Your task to perform on an android device: Check the news Image 0: 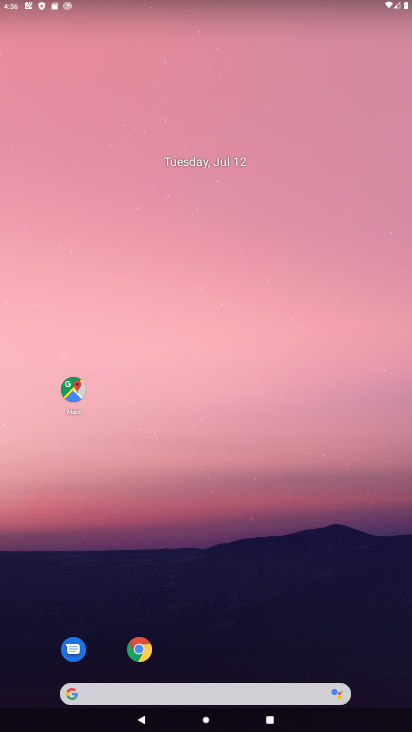
Step 0: click (138, 649)
Your task to perform on an android device: Check the news Image 1: 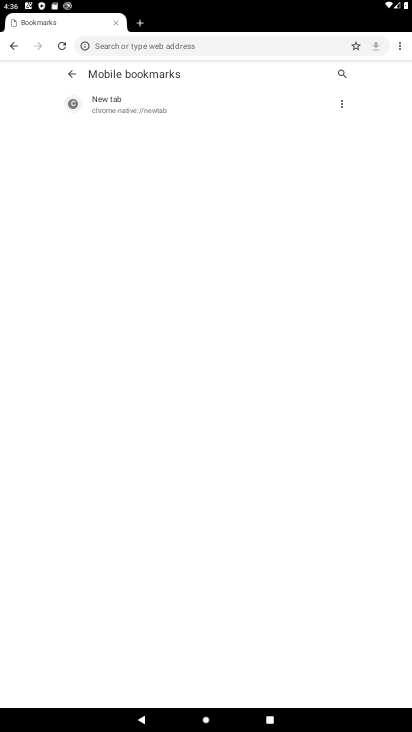
Step 1: click (323, 45)
Your task to perform on an android device: Check the news Image 2: 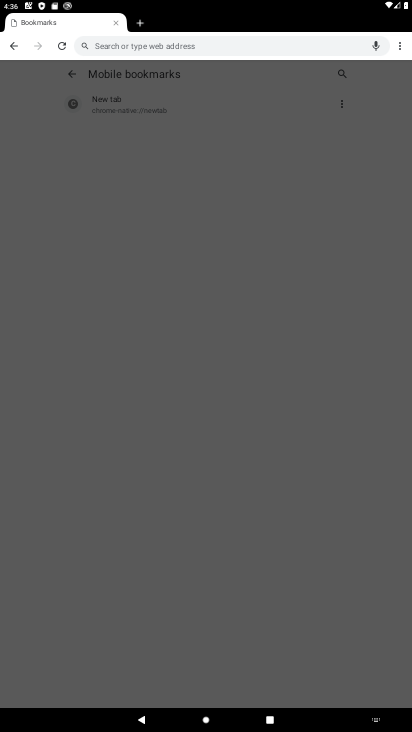
Step 2: type "news"
Your task to perform on an android device: Check the news Image 3: 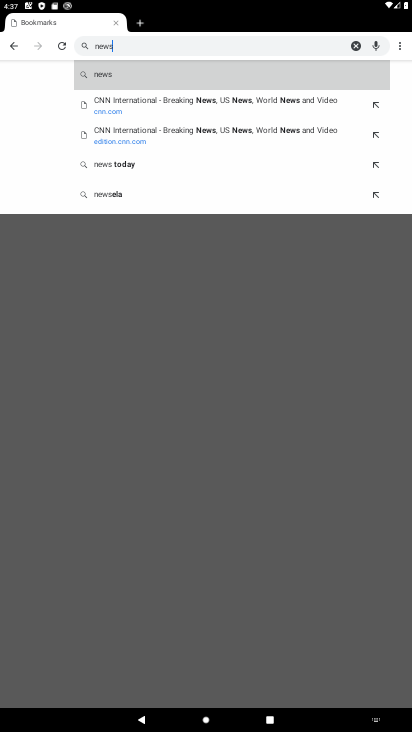
Step 3: click (103, 70)
Your task to perform on an android device: Check the news Image 4: 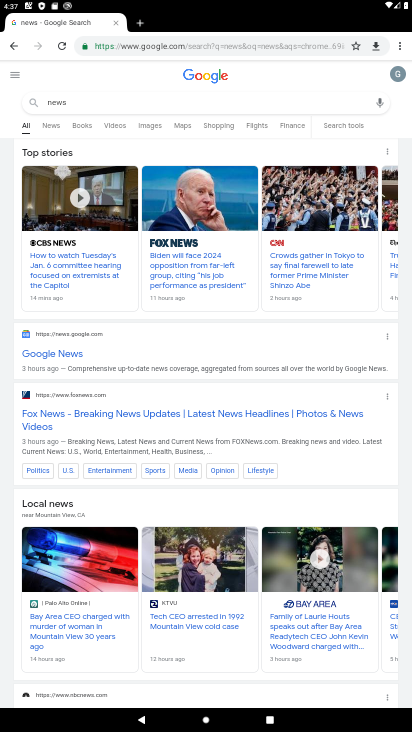
Step 4: click (94, 274)
Your task to perform on an android device: Check the news Image 5: 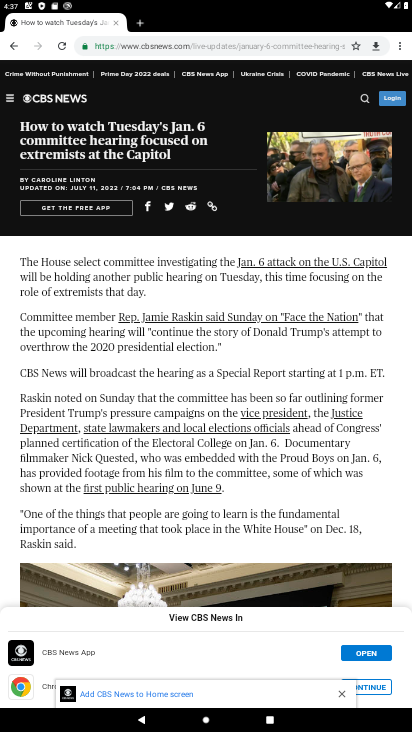
Step 5: task complete